Your task to perform on an android device: uninstall "Pandora - Music & Podcasts" Image 0: 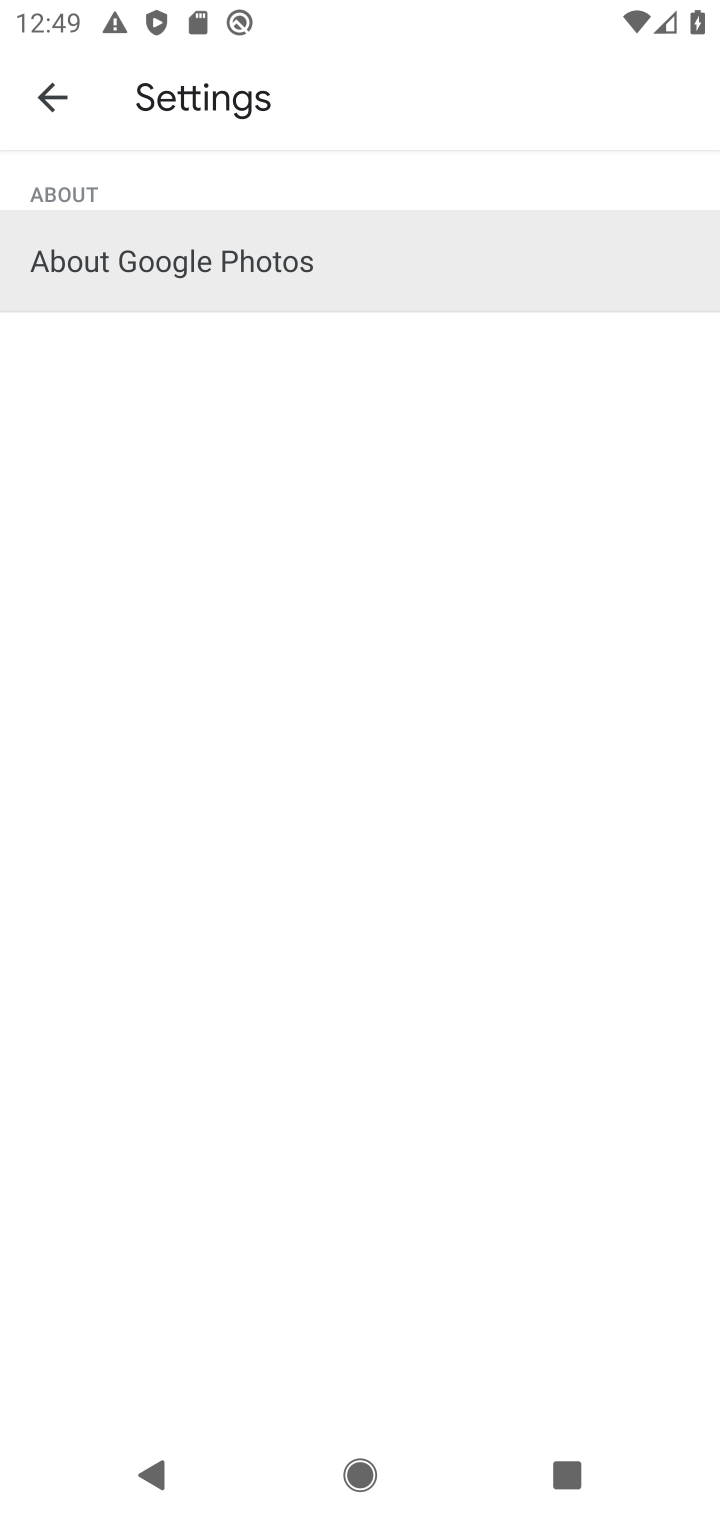
Step 0: press home button
Your task to perform on an android device: uninstall "Pandora - Music & Podcasts" Image 1: 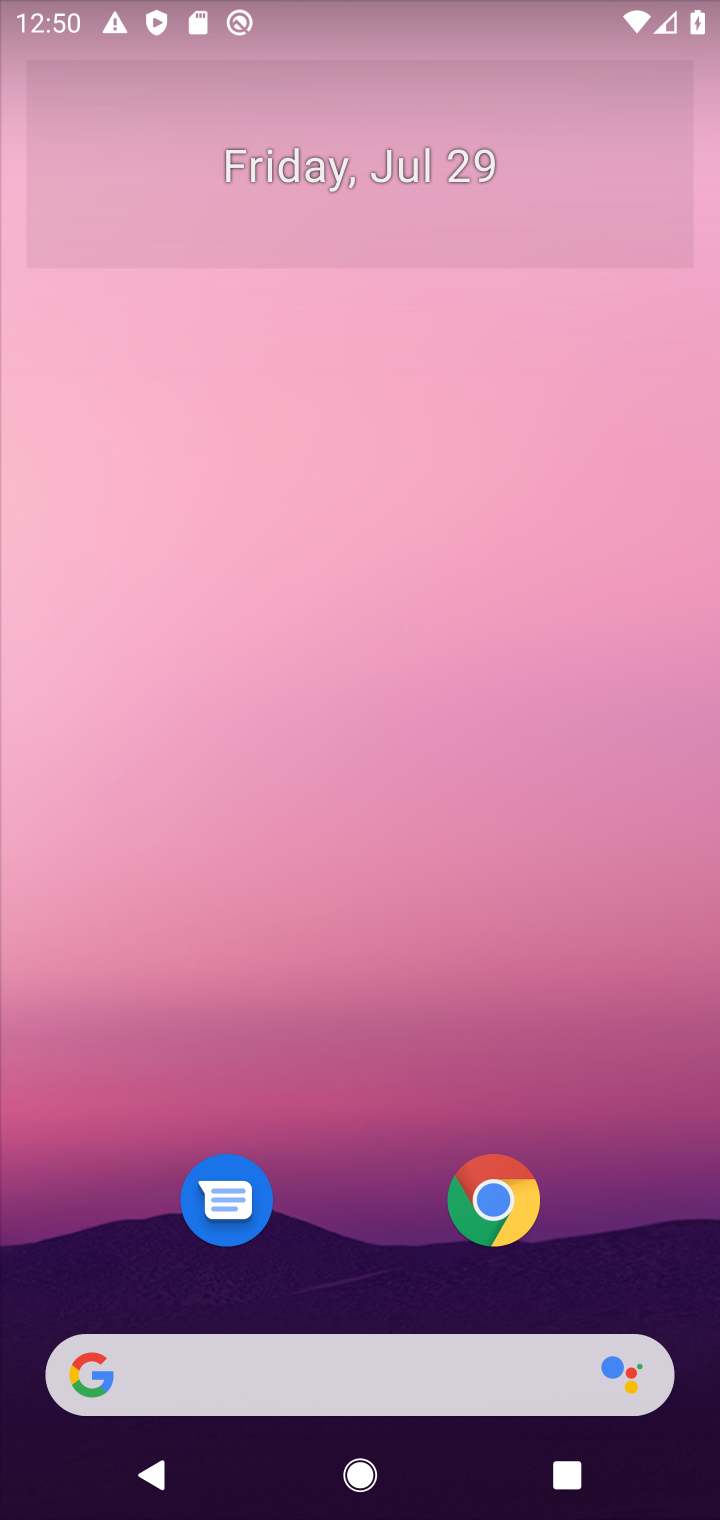
Step 1: drag from (576, 779) to (488, 5)
Your task to perform on an android device: uninstall "Pandora - Music & Podcasts" Image 2: 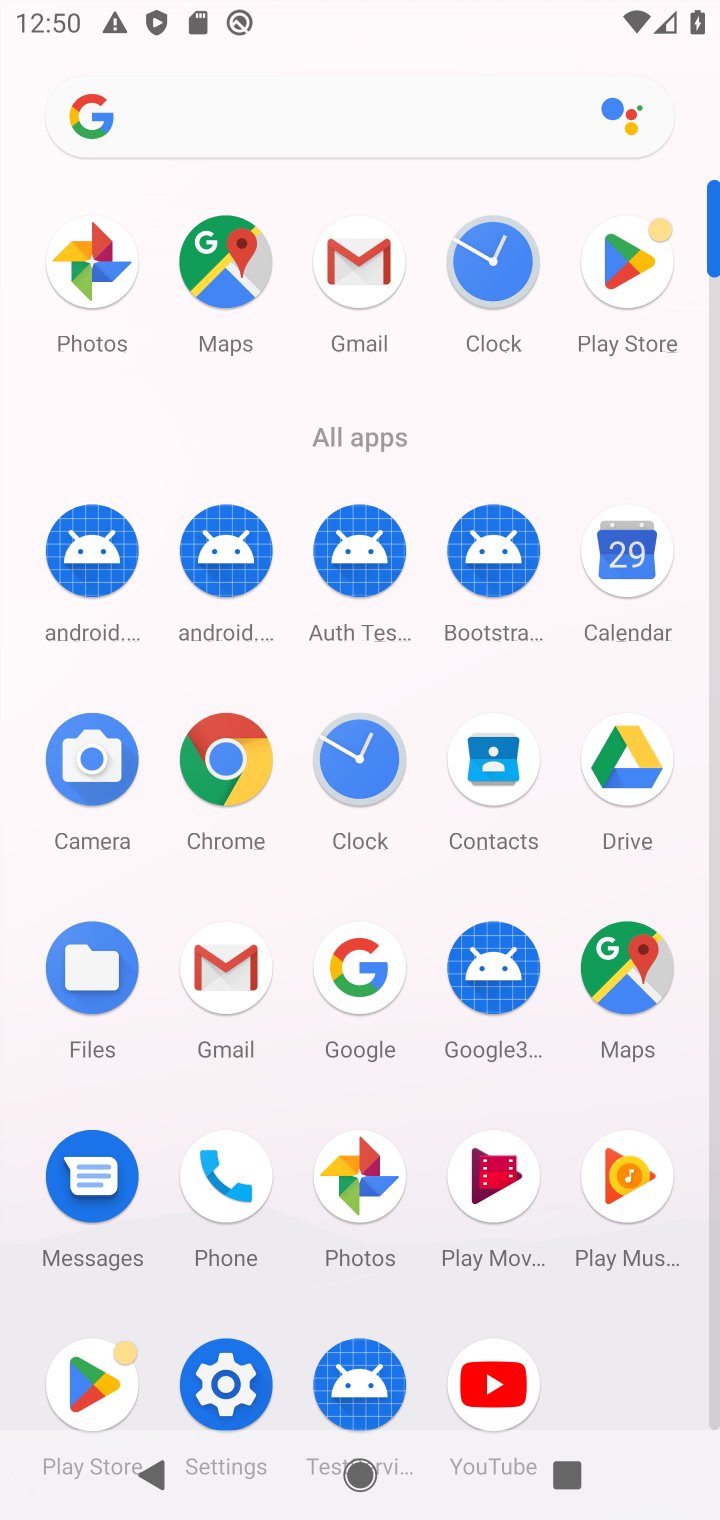
Step 2: click (628, 265)
Your task to perform on an android device: uninstall "Pandora - Music & Podcasts" Image 3: 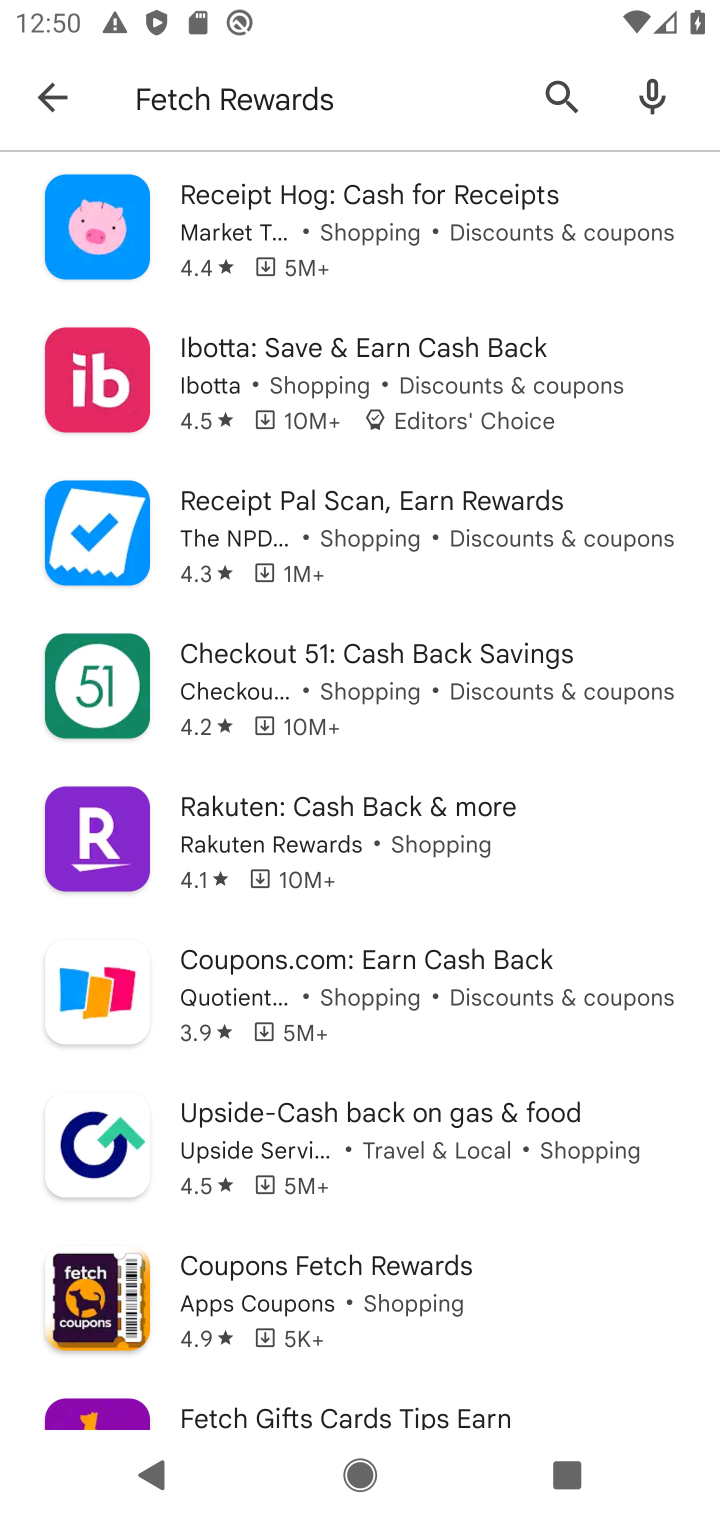
Step 3: click (332, 95)
Your task to perform on an android device: uninstall "Pandora - Music & Podcasts" Image 4: 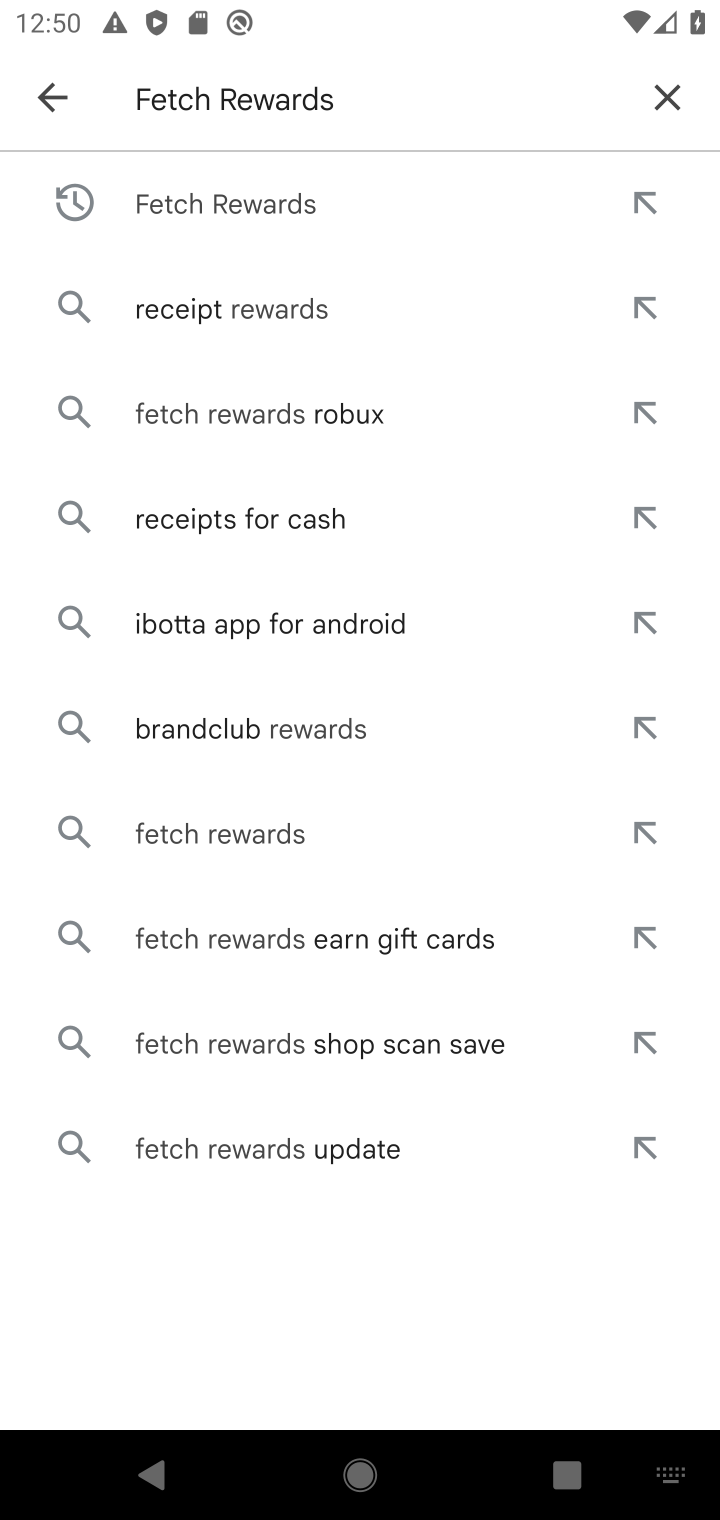
Step 4: click (683, 87)
Your task to perform on an android device: uninstall "Pandora - Music & Podcasts" Image 5: 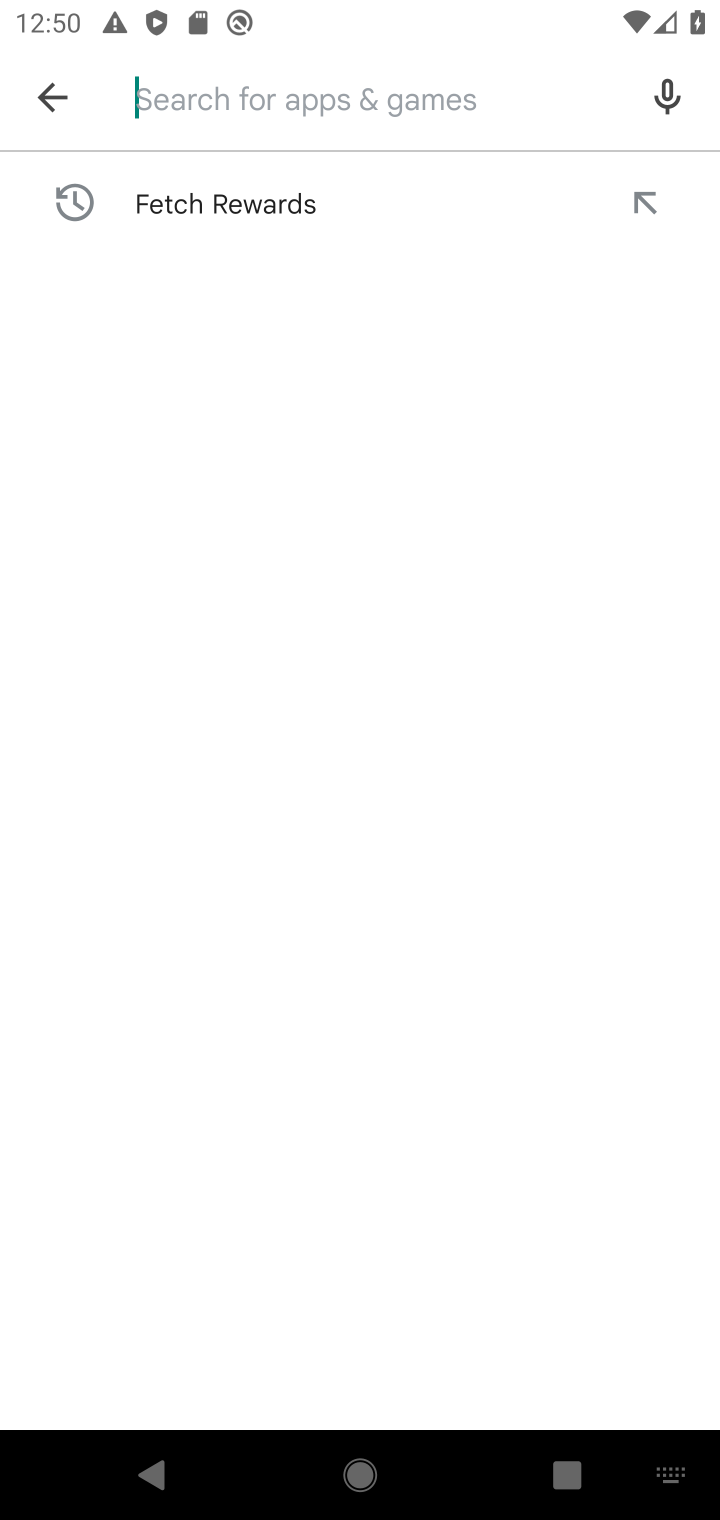
Step 5: type "Pandora - Music & Podcasts"
Your task to perform on an android device: uninstall "Pandora - Music & Podcasts" Image 6: 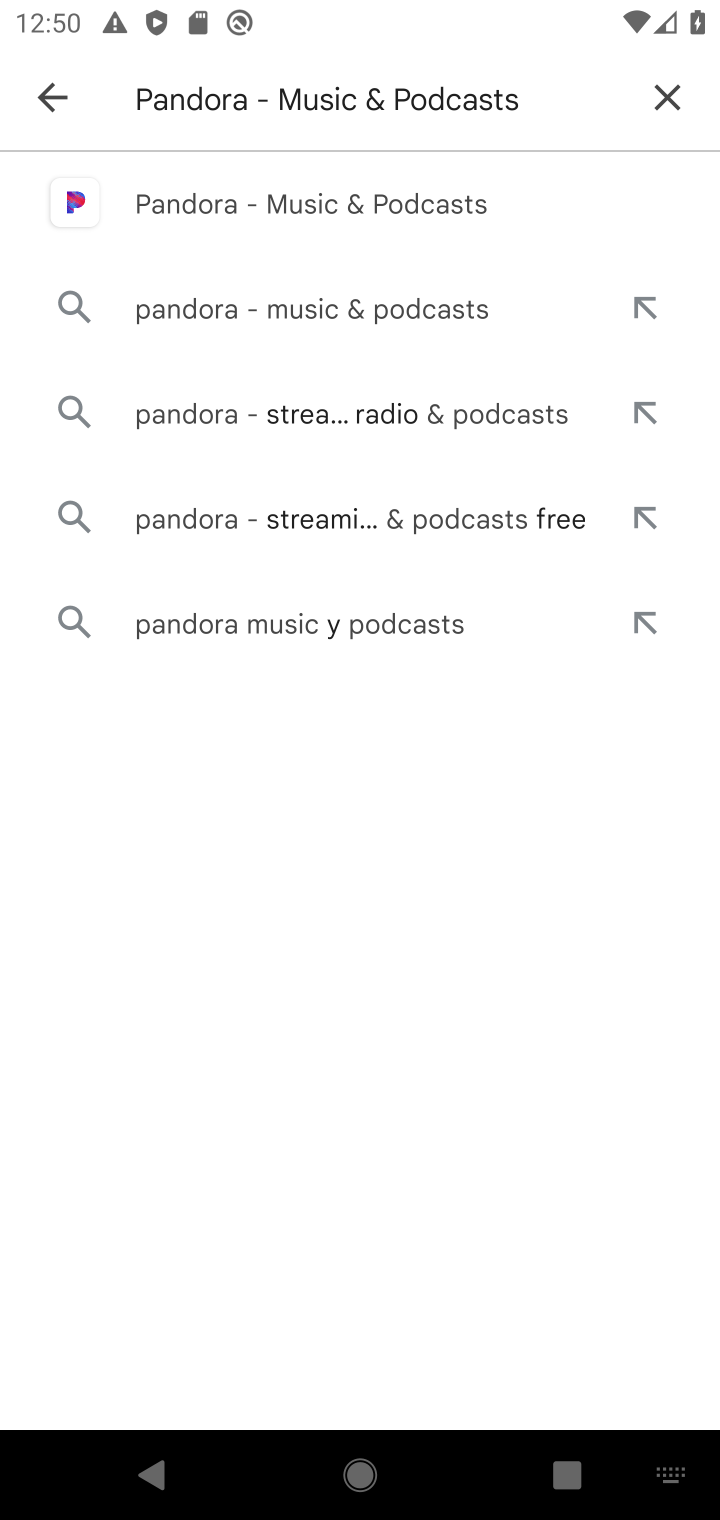
Step 6: click (410, 204)
Your task to perform on an android device: uninstall "Pandora - Music & Podcasts" Image 7: 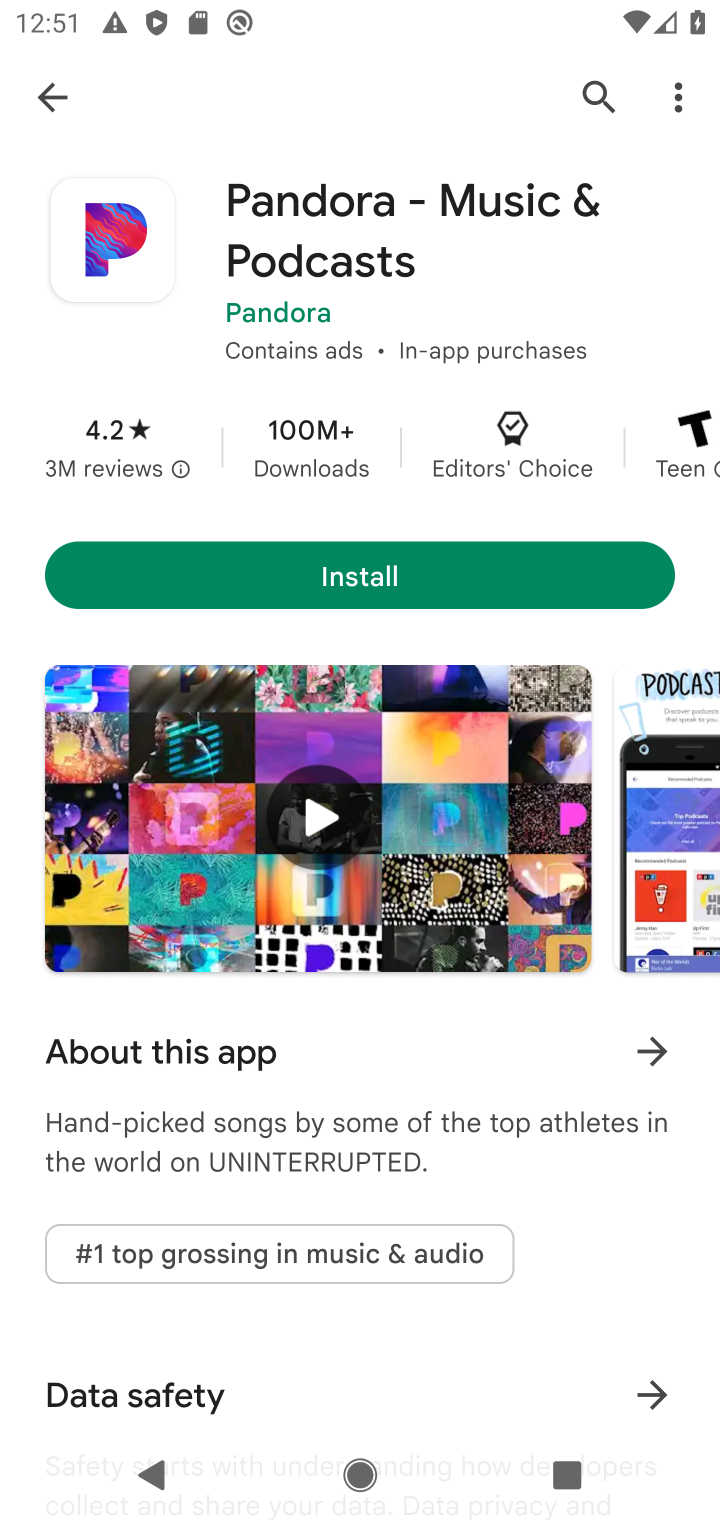
Step 7: task complete